Your task to perform on an android device: check battery use Image 0: 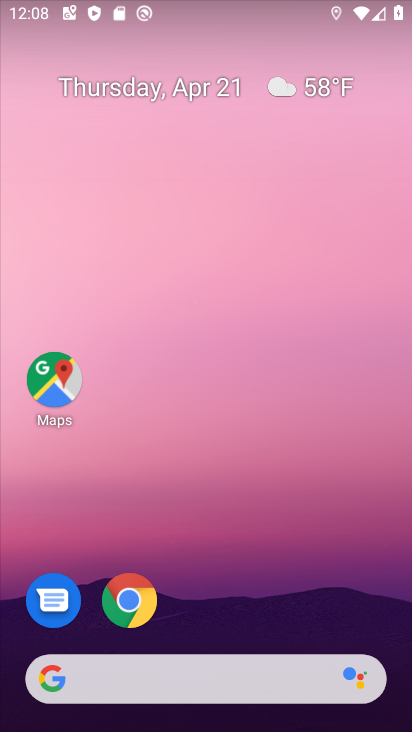
Step 0: drag from (216, 649) to (331, 16)
Your task to perform on an android device: check battery use Image 1: 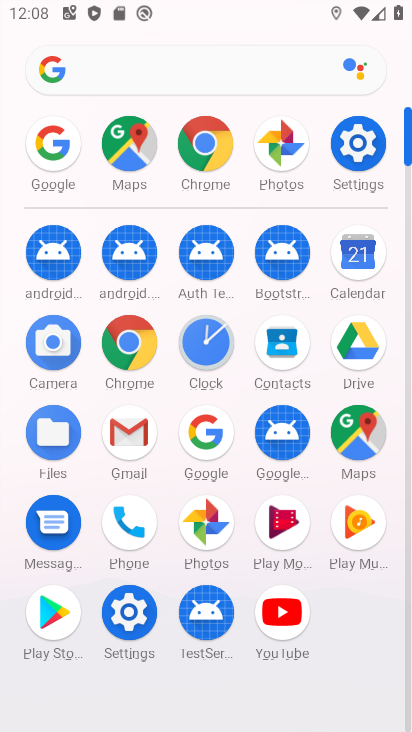
Step 1: click (352, 134)
Your task to perform on an android device: check battery use Image 2: 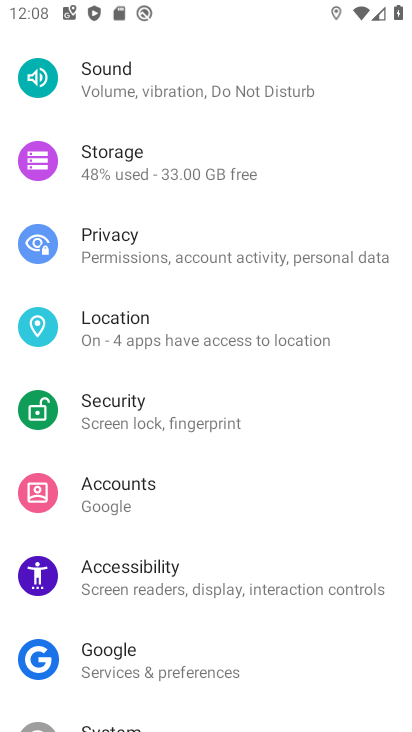
Step 2: drag from (165, 334) to (207, 576)
Your task to perform on an android device: check battery use Image 3: 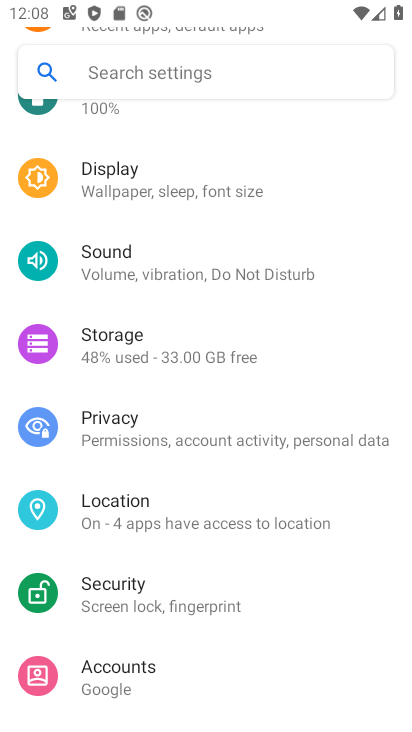
Step 3: click (137, 110)
Your task to perform on an android device: check battery use Image 4: 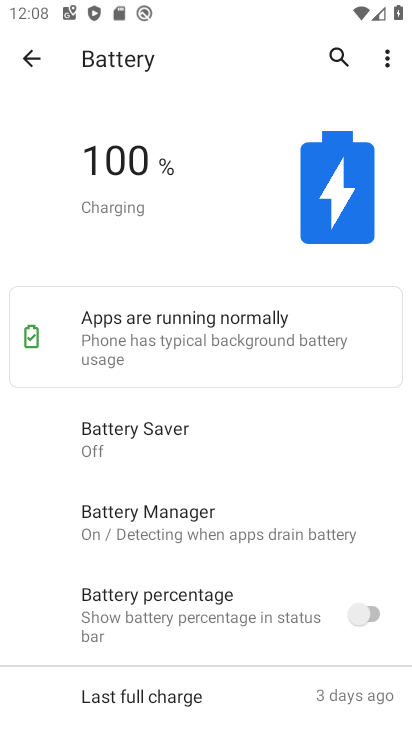
Step 4: drag from (230, 562) to (209, 311)
Your task to perform on an android device: check battery use Image 5: 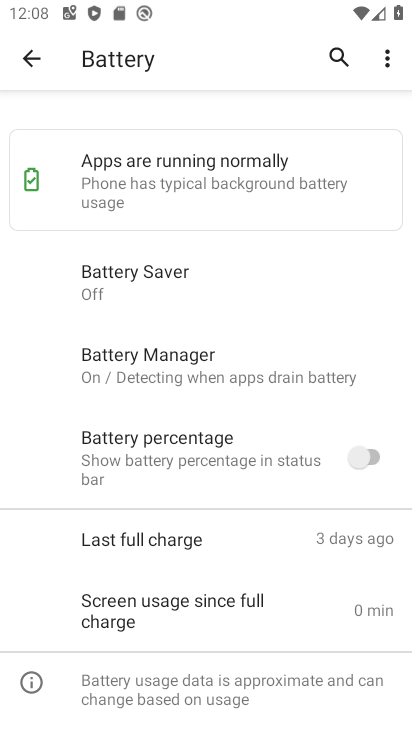
Step 5: click (382, 54)
Your task to perform on an android device: check battery use Image 6: 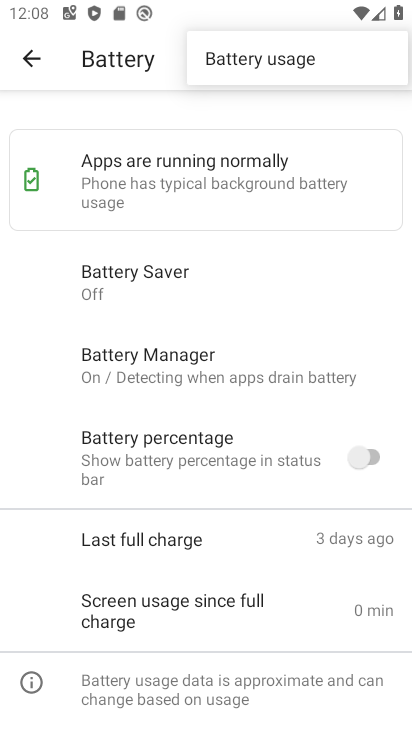
Step 6: click (283, 61)
Your task to perform on an android device: check battery use Image 7: 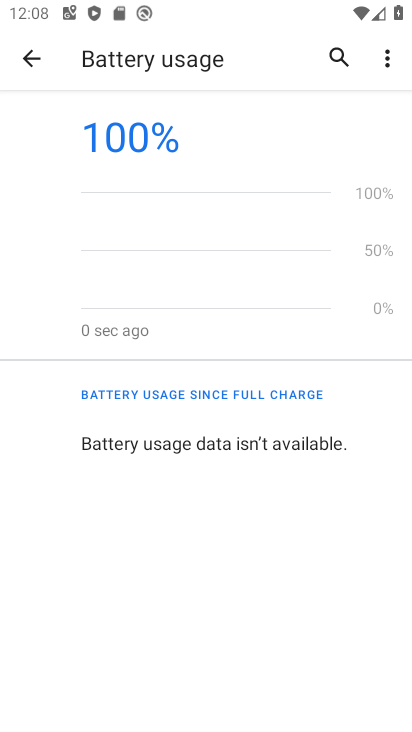
Step 7: task complete